Your task to perform on an android device: Go to settings Image 0: 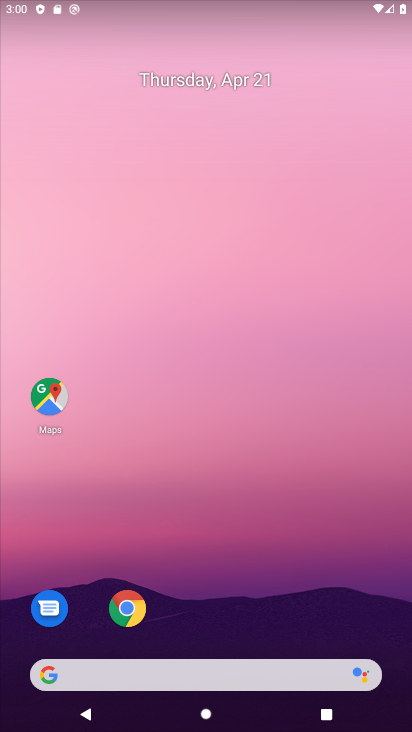
Step 0: drag from (228, 615) to (235, 220)
Your task to perform on an android device: Go to settings Image 1: 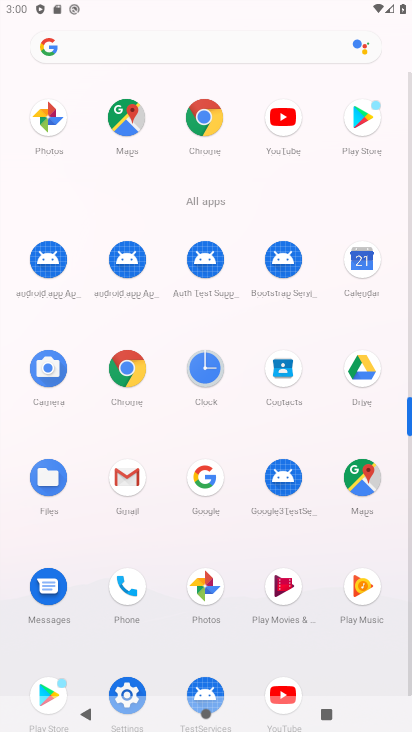
Step 1: drag from (170, 611) to (210, 222)
Your task to perform on an android device: Go to settings Image 2: 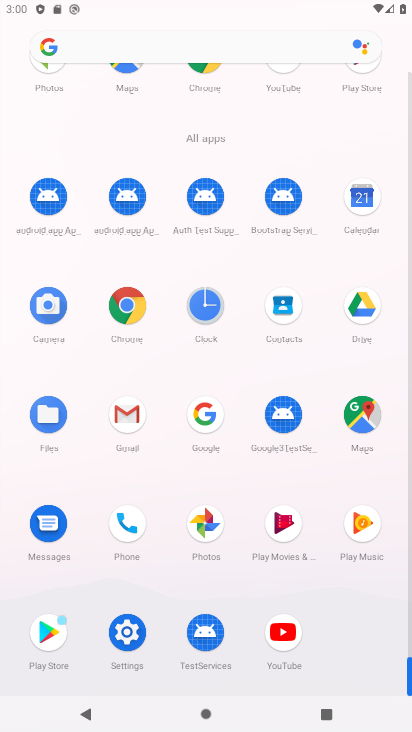
Step 2: click (126, 642)
Your task to perform on an android device: Go to settings Image 3: 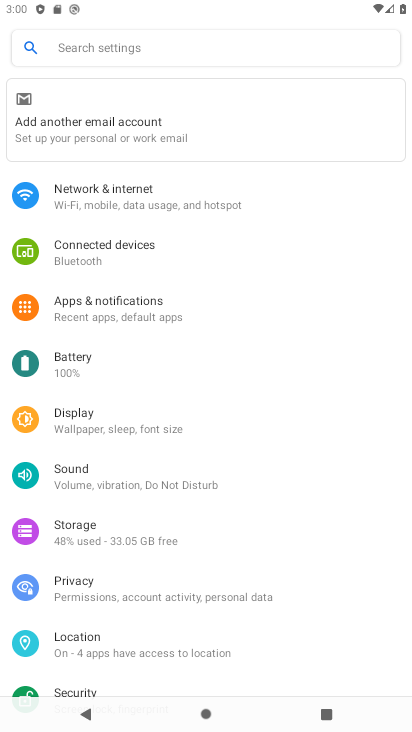
Step 3: task complete